Your task to perform on an android device: delete a single message in the gmail app Image 0: 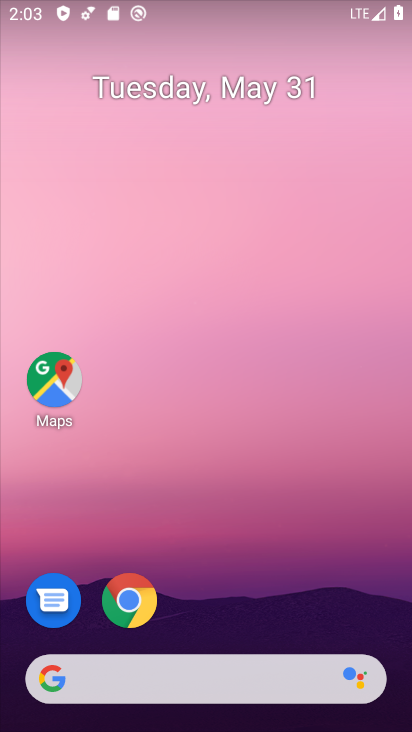
Step 0: press home button
Your task to perform on an android device: delete a single message in the gmail app Image 1: 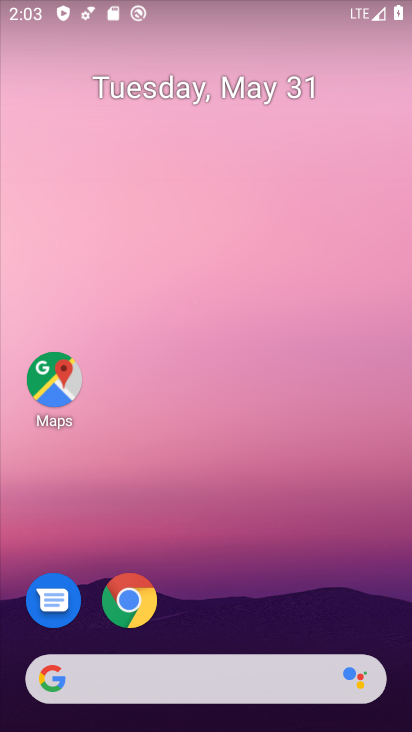
Step 1: drag from (232, 631) to (269, 2)
Your task to perform on an android device: delete a single message in the gmail app Image 2: 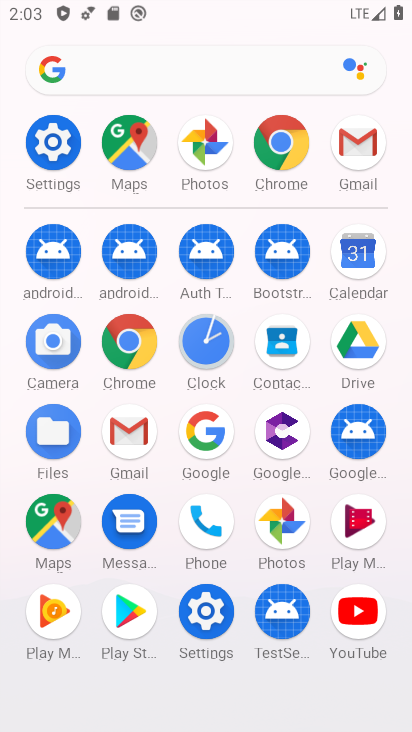
Step 2: click (125, 420)
Your task to perform on an android device: delete a single message in the gmail app Image 3: 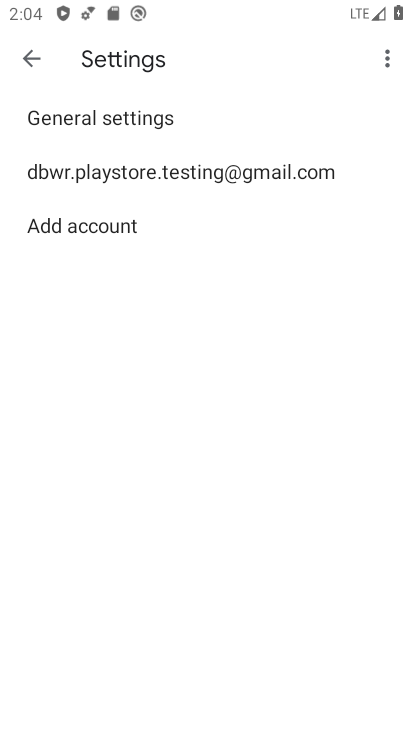
Step 3: click (26, 48)
Your task to perform on an android device: delete a single message in the gmail app Image 4: 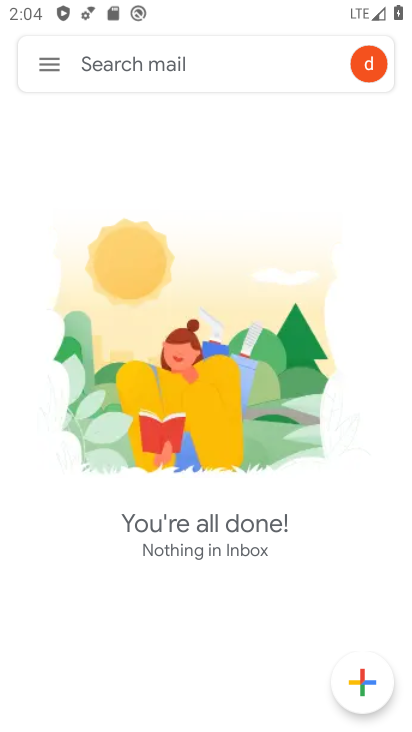
Step 4: task complete